Your task to perform on an android device: turn smart compose on in the gmail app Image 0: 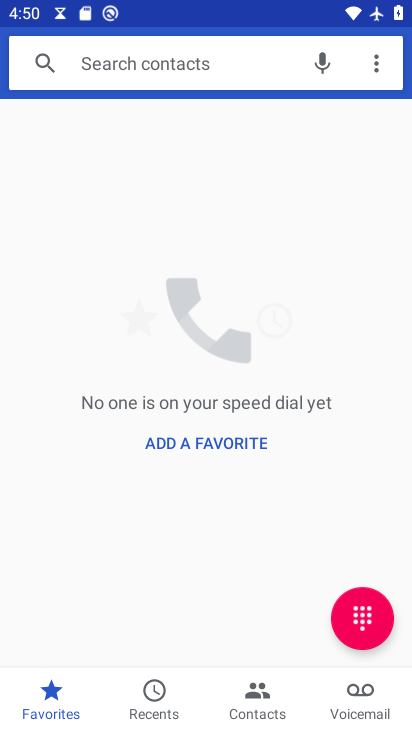
Step 0: press home button
Your task to perform on an android device: turn smart compose on in the gmail app Image 1: 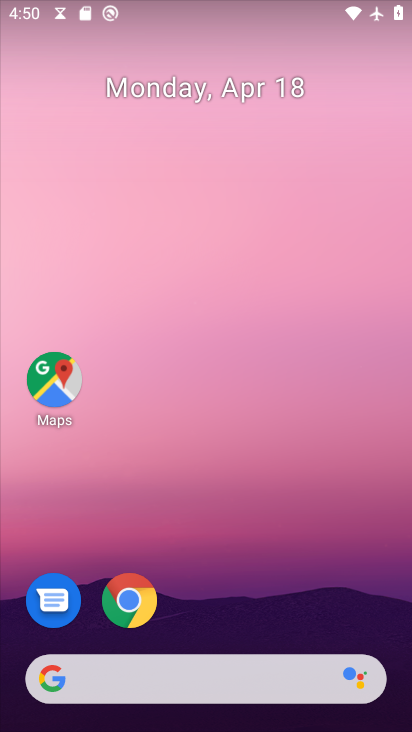
Step 1: drag from (230, 617) to (262, 403)
Your task to perform on an android device: turn smart compose on in the gmail app Image 2: 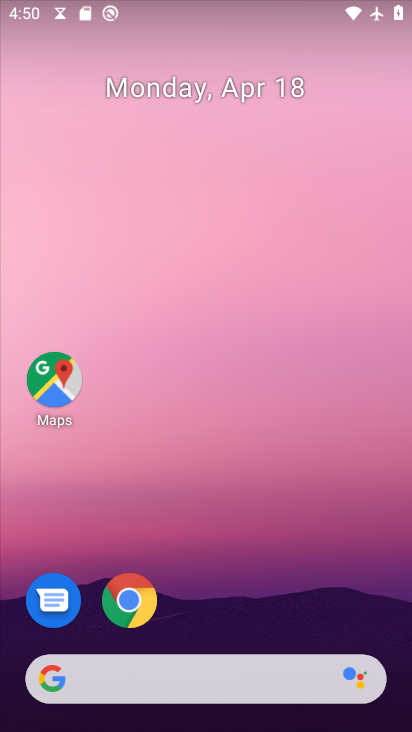
Step 2: drag from (245, 506) to (248, 42)
Your task to perform on an android device: turn smart compose on in the gmail app Image 3: 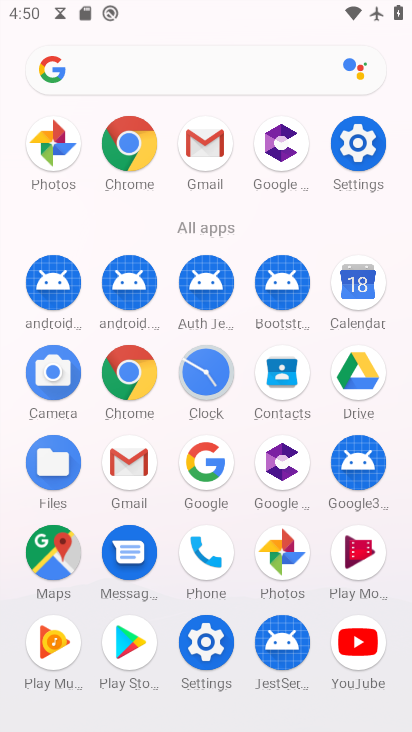
Step 3: click (134, 466)
Your task to perform on an android device: turn smart compose on in the gmail app Image 4: 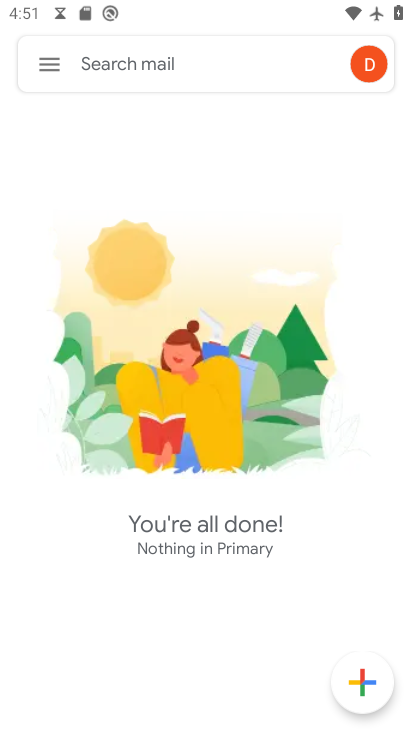
Step 4: click (49, 60)
Your task to perform on an android device: turn smart compose on in the gmail app Image 5: 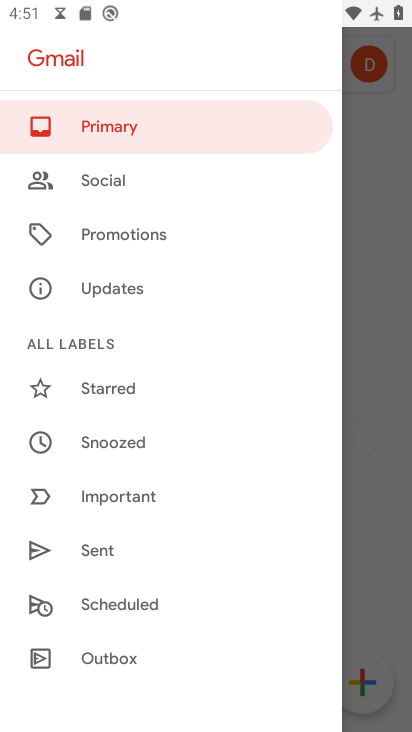
Step 5: drag from (136, 631) to (180, 453)
Your task to perform on an android device: turn smart compose on in the gmail app Image 6: 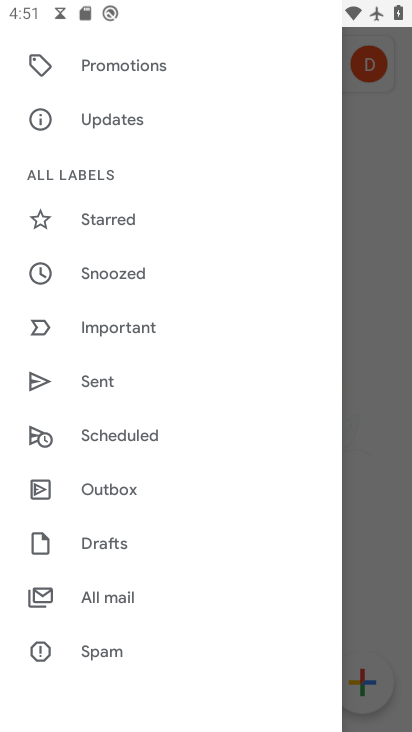
Step 6: drag from (112, 626) to (171, 79)
Your task to perform on an android device: turn smart compose on in the gmail app Image 7: 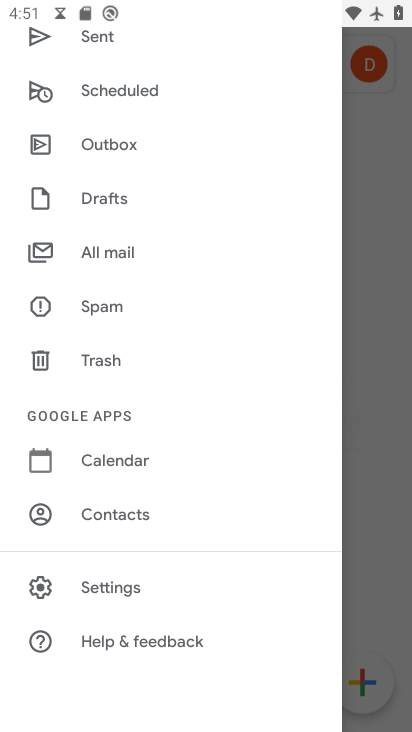
Step 7: click (123, 583)
Your task to perform on an android device: turn smart compose on in the gmail app Image 8: 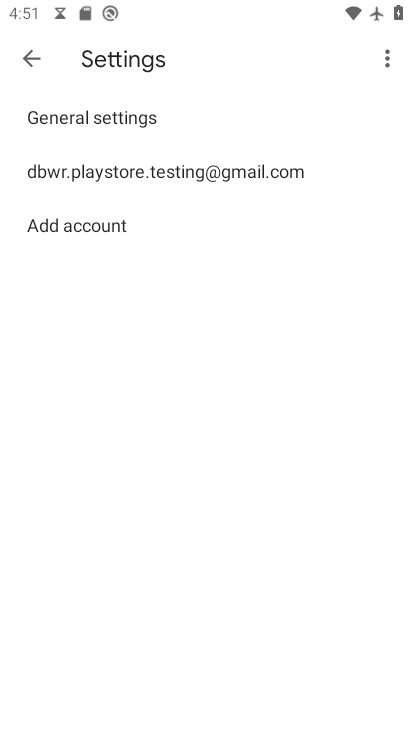
Step 8: click (125, 174)
Your task to perform on an android device: turn smart compose on in the gmail app Image 9: 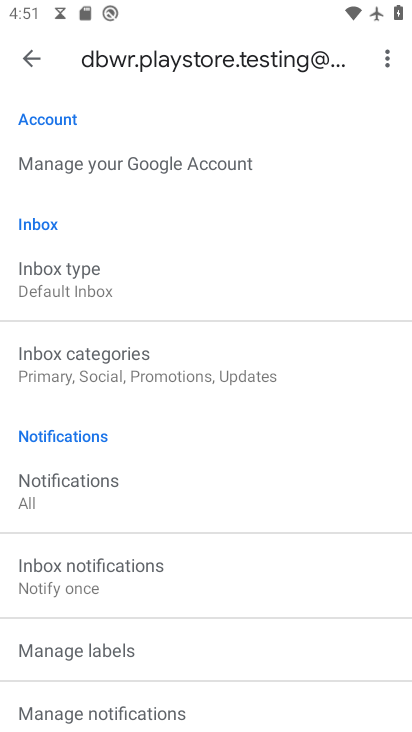
Step 9: task complete